Your task to perform on an android device: toggle notification dots Image 0: 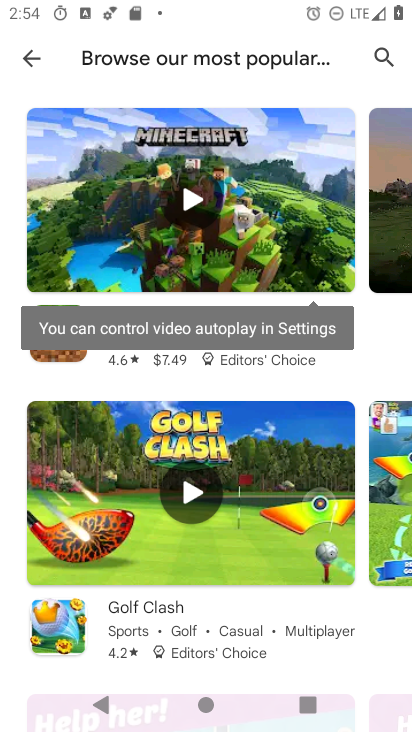
Step 0: press home button
Your task to perform on an android device: toggle notification dots Image 1: 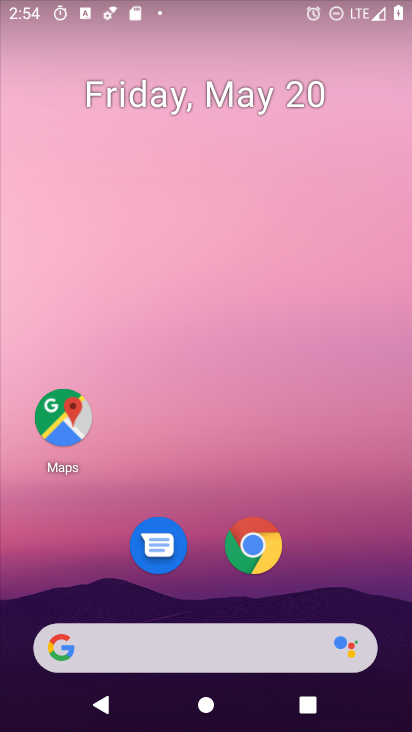
Step 1: drag from (233, 633) to (281, 1)
Your task to perform on an android device: toggle notification dots Image 2: 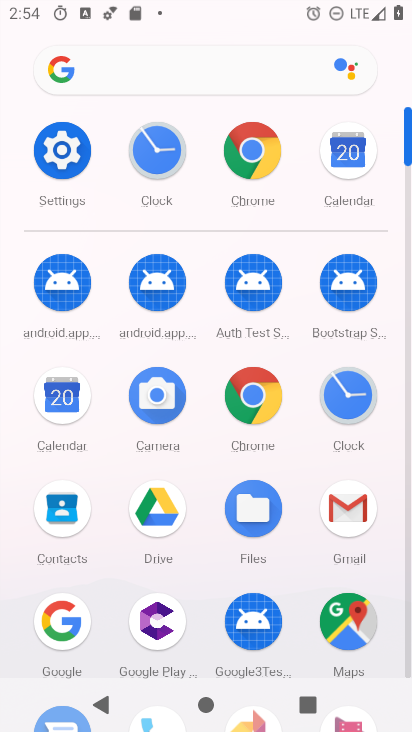
Step 2: click (58, 143)
Your task to perform on an android device: toggle notification dots Image 3: 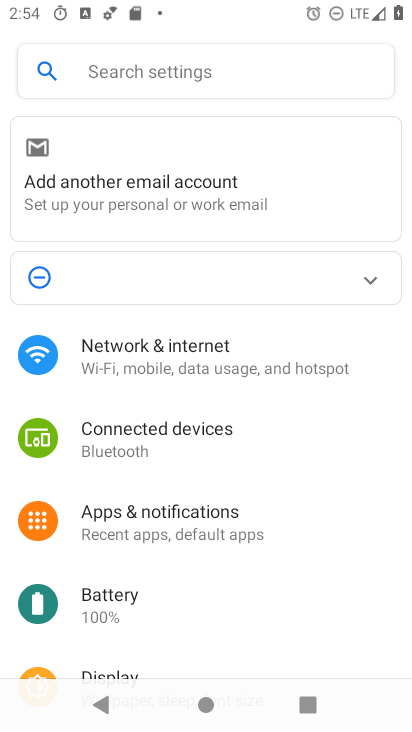
Step 3: click (202, 522)
Your task to perform on an android device: toggle notification dots Image 4: 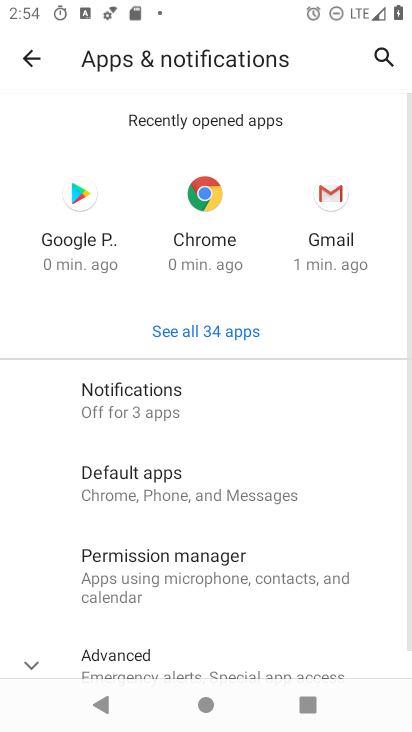
Step 4: click (191, 409)
Your task to perform on an android device: toggle notification dots Image 5: 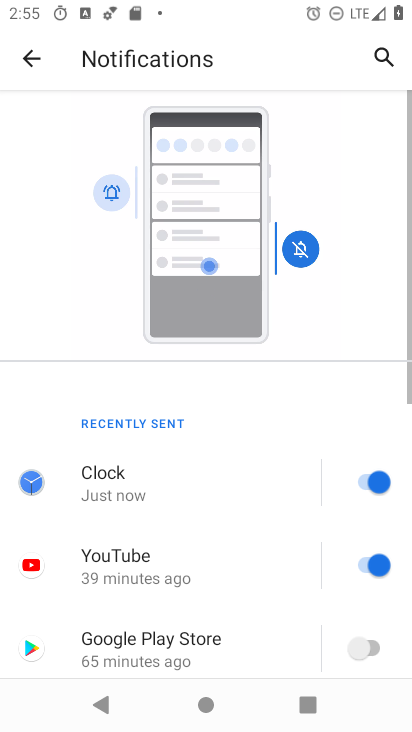
Step 5: drag from (272, 637) to (302, 25)
Your task to perform on an android device: toggle notification dots Image 6: 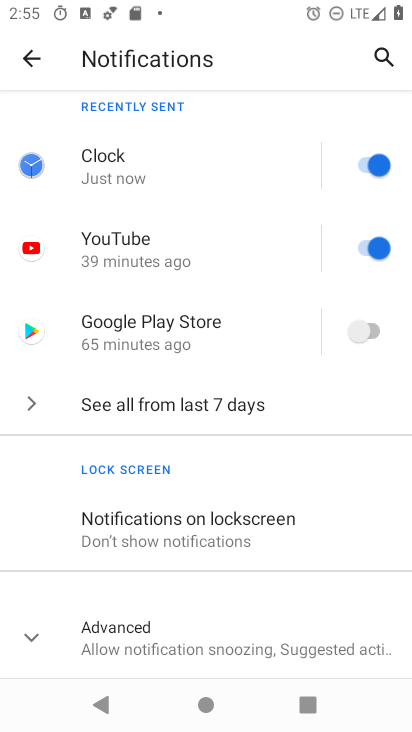
Step 6: click (245, 655)
Your task to perform on an android device: toggle notification dots Image 7: 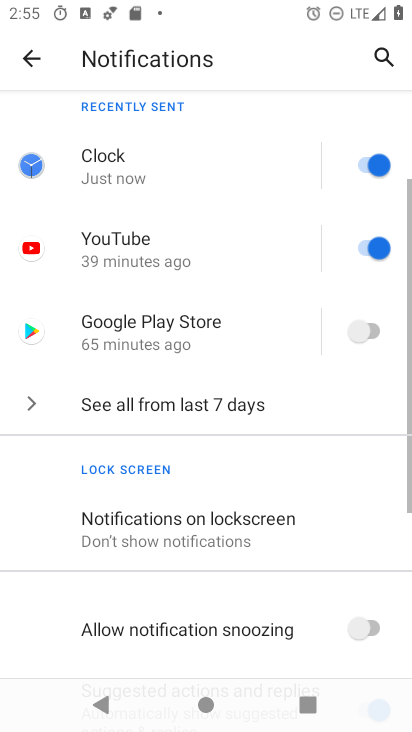
Step 7: drag from (245, 655) to (215, 73)
Your task to perform on an android device: toggle notification dots Image 8: 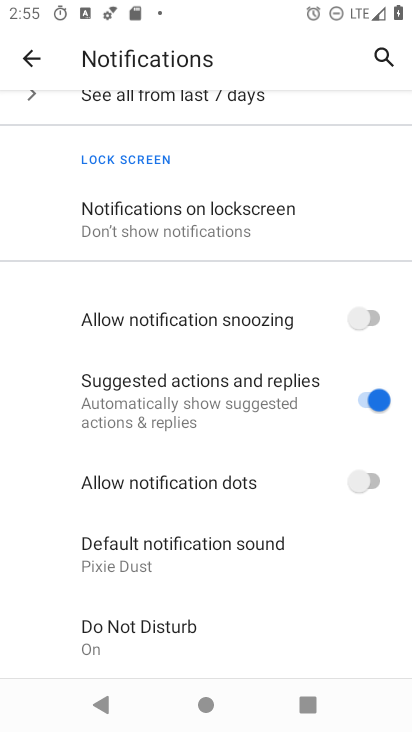
Step 8: click (374, 479)
Your task to perform on an android device: toggle notification dots Image 9: 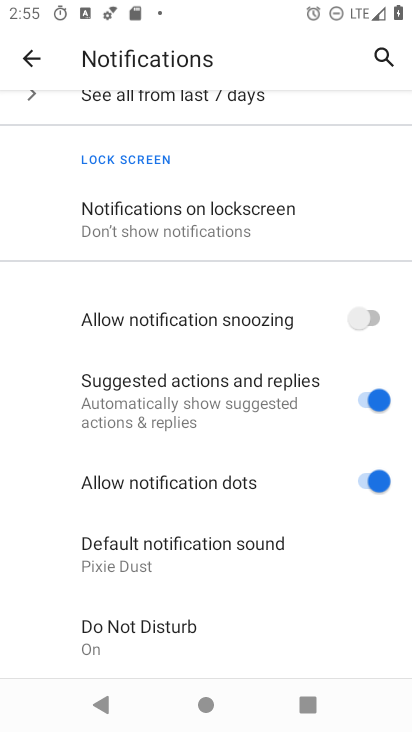
Step 9: task complete